Your task to perform on an android device: Open battery settings Image 0: 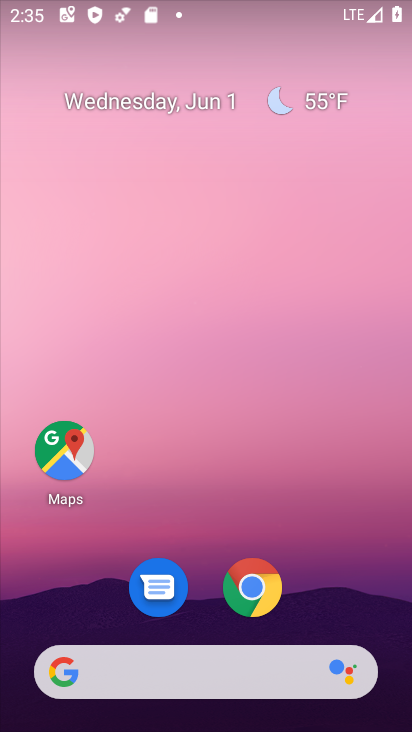
Step 0: drag from (259, 652) to (286, 113)
Your task to perform on an android device: Open battery settings Image 1: 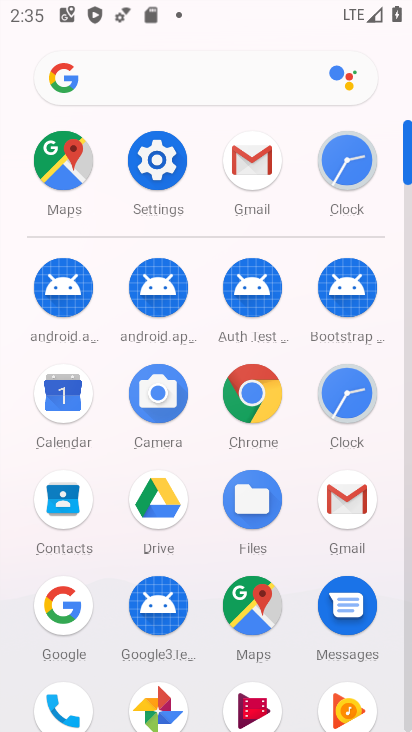
Step 1: click (175, 177)
Your task to perform on an android device: Open battery settings Image 2: 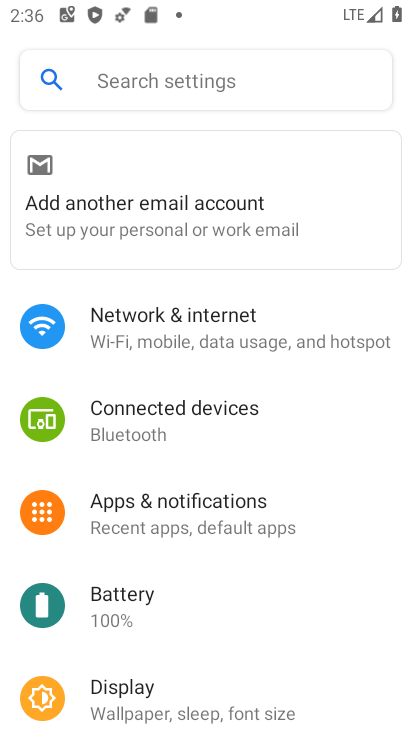
Step 2: click (130, 602)
Your task to perform on an android device: Open battery settings Image 3: 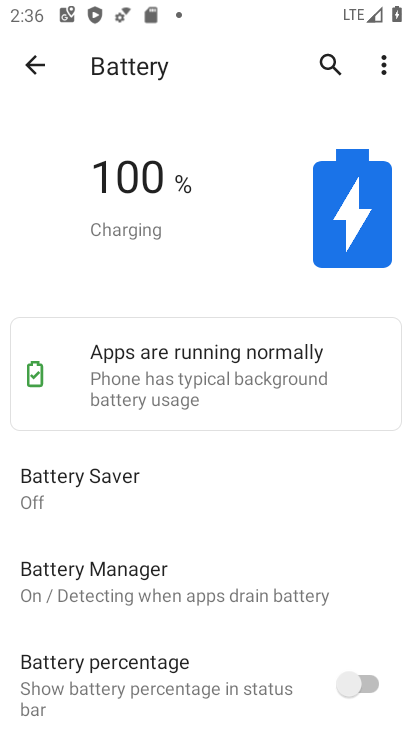
Step 3: task complete